Your task to perform on an android device: Open ESPN.com Image 0: 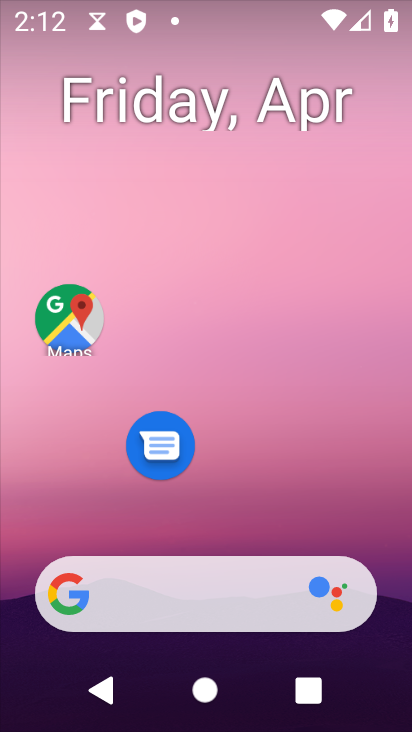
Step 0: drag from (281, 488) to (341, 111)
Your task to perform on an android device: Open ESPN.com Image 1: 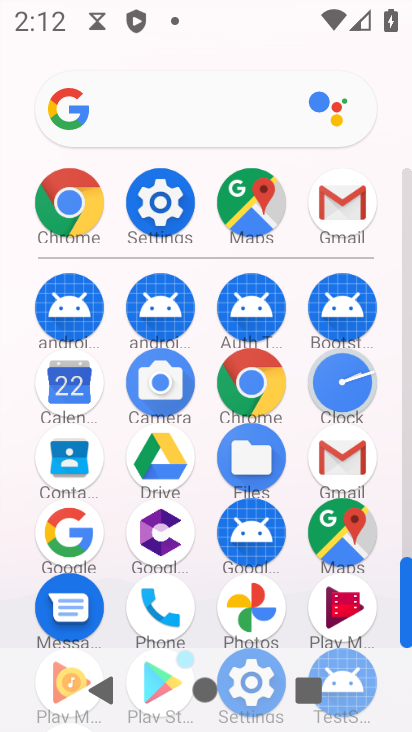
Step 1: click (69, 202)
Your task to perform on an android device: Open ESPN.com Image 2: 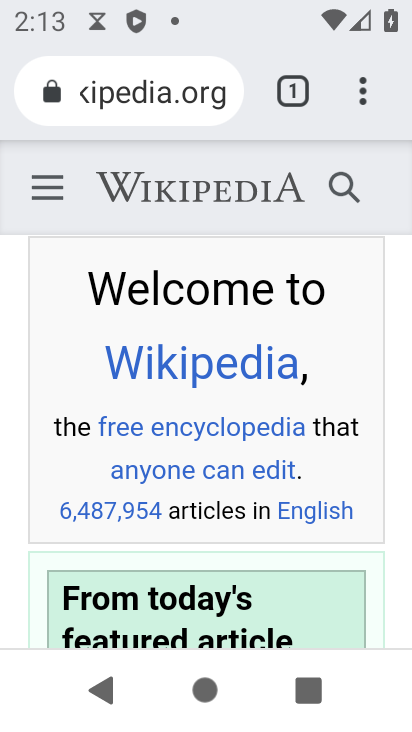
Step 2: click (146, 95)
Your task to perform on an android device: Open ESPN.com Image 3: 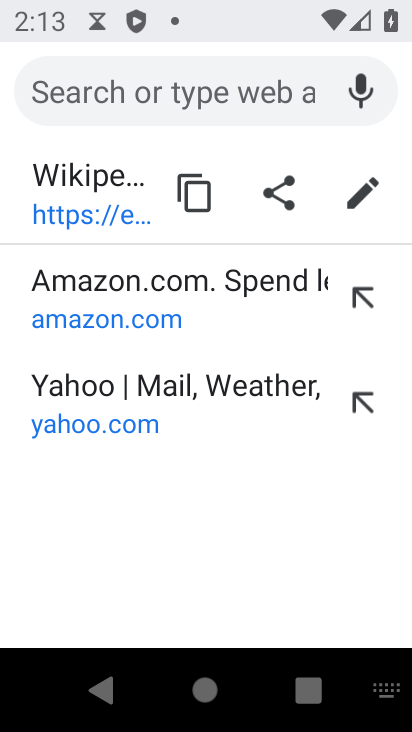
Step 3: type "ESPN.com"
Your task to perform on an android device: Open ESPN.com Image 4: 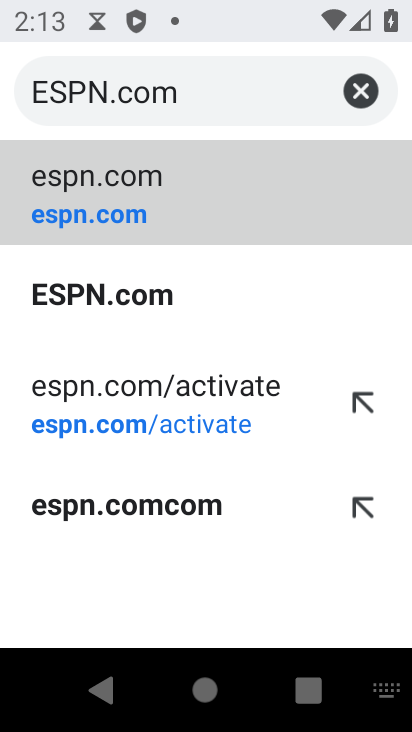
Step 4: click (88, 192)
Your task to perform on an android device: Open ESPN.com Image 5: 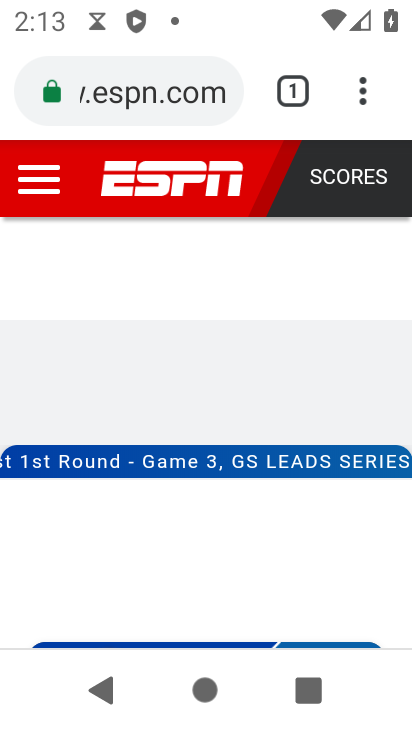
Step 5: task complete